Your task to perform on an android device: Show me popular videos on Youtube Image 0: 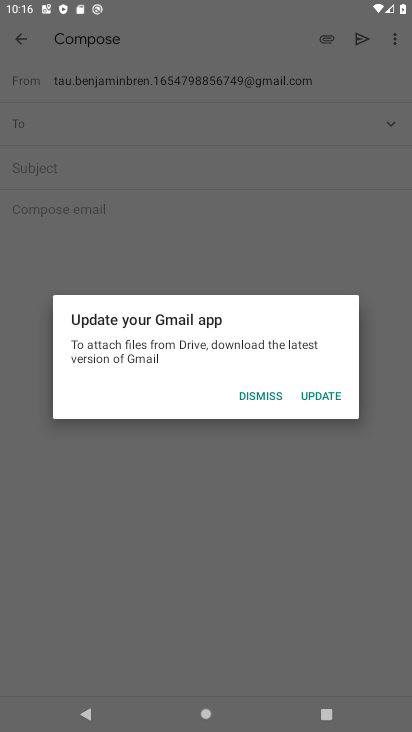
Step 0: press home button
Your task to perform on an android device: Show me popular videos on Youtube Image 1: 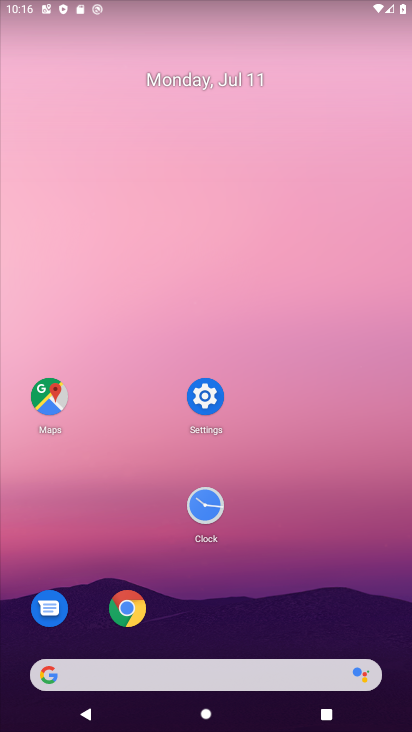
Step 1: drag from (394, 686) to (325, 92)
Your task to perform on an android device: Show me popular videos on Youtube Image 2: 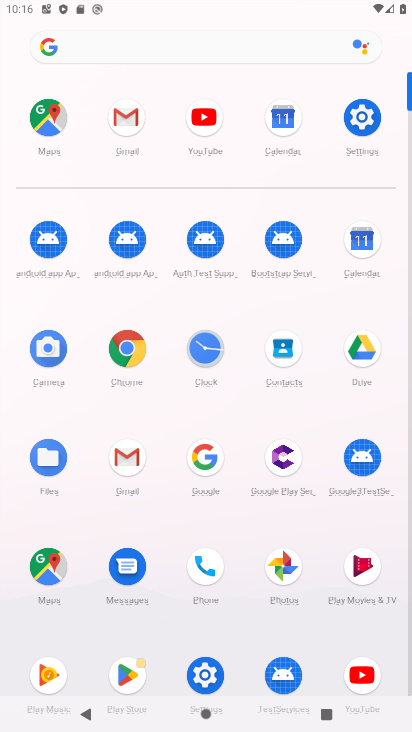
Step 2: click (350, 671)
Your task to perform on an android device: Show me popular videos on Youtube Image 3: 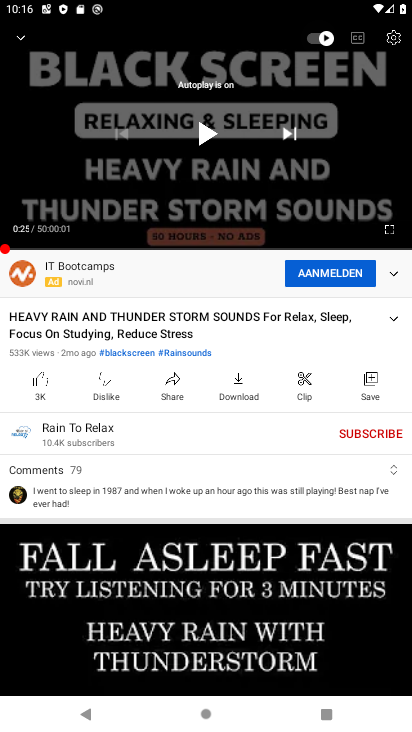
Step 3: drag from (258, 202) to (257, 416)
Your task to perform on an android device: Show me popular videos on Youtube Image 4: 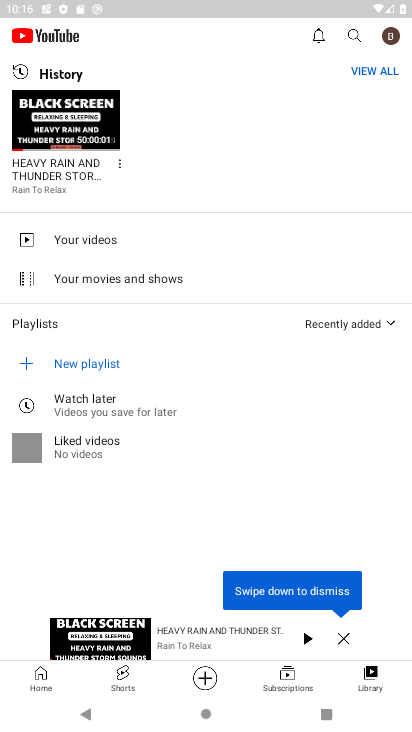
Step 4: click (353, 34)
Your task to perform on an android device: Show me popular videos on Youtube Image 5: 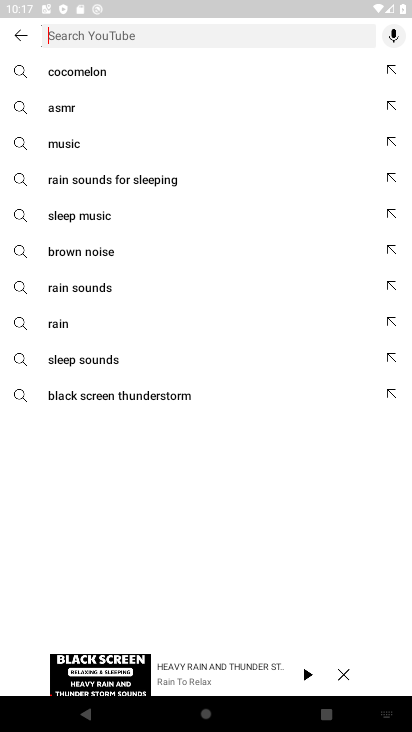
Step 5: type "popular videos on Youtube"
Your task to perform on an android device: Show me popular videos on Youtube Image 6: 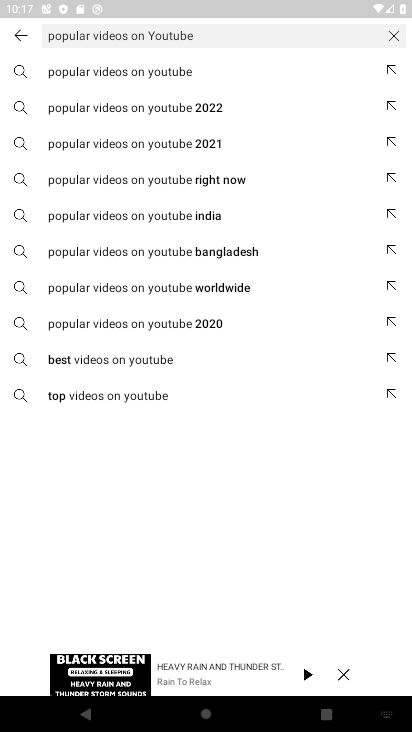
Step 6: click (108, 73)
Your task to perform on an android device: Show me popular videos on Youtube Image 7: 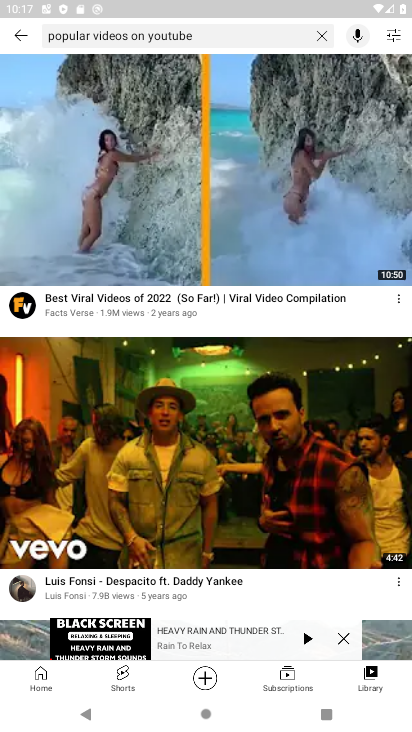
Step 7: task complete